Your task to perform on an android device: turn on notifications settings in the gmail app Image 0: 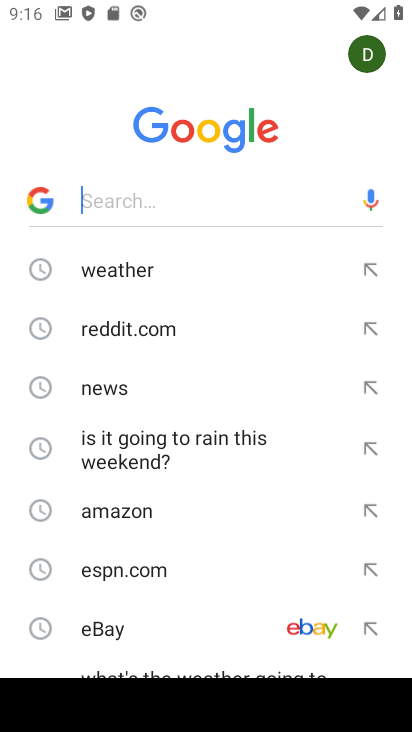
Step 0: press home button
Your task to perform on an android device: turn on notifications settings in the gmail app Image 1: 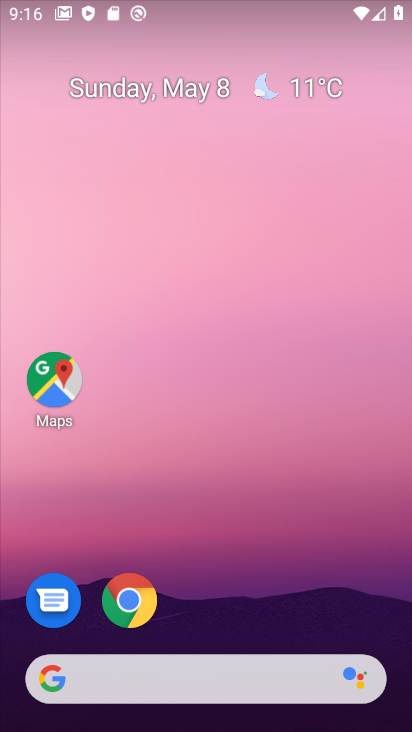
Step 1: drag from (243, 624) to (208, 52)
Your task to perform on an android device: turn on notifications settings in the gmail app Image 2: 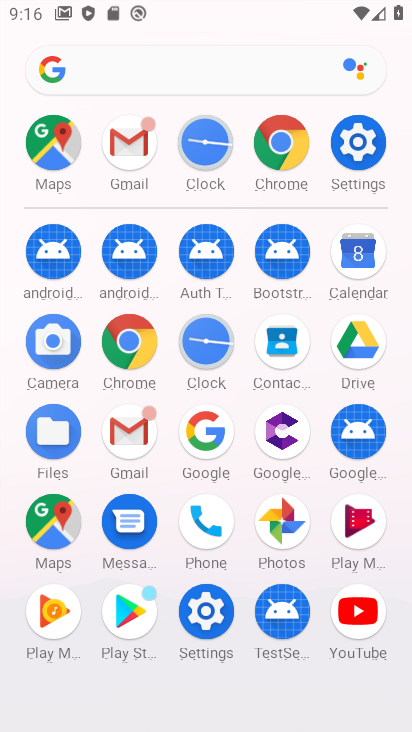
Step 2: click (113, 144)
Your task to perform on an android device: turn on notifications settings in the gmail app Image 3: 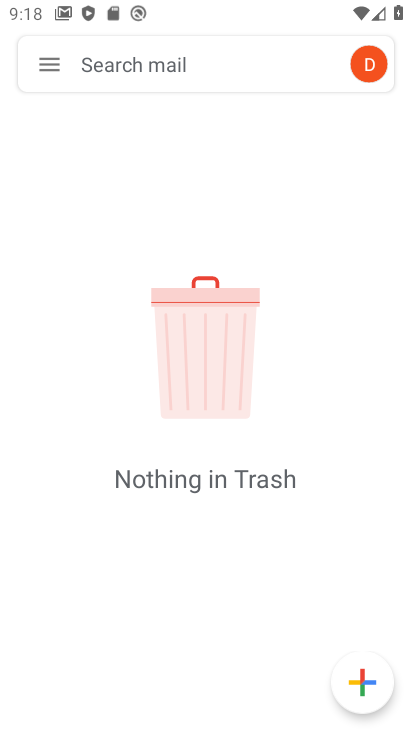
Step 3: click (53, 65)
Your task to perform on an android device: turn on notifications settings in the gmail app Image 4: 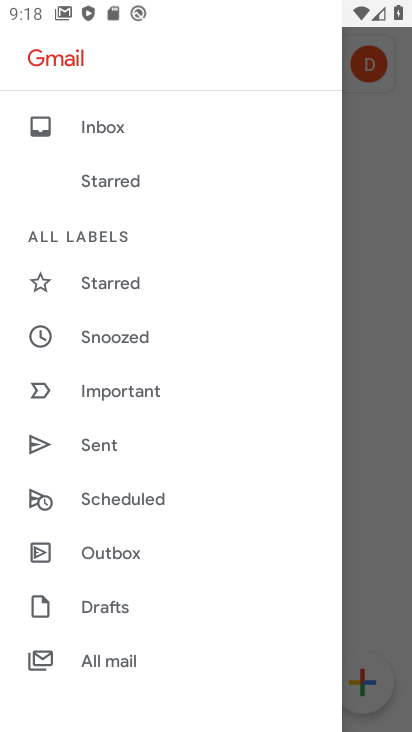
Step 4: drag from (168, 468) to (232, 79)
Your task to perform on an android device: turn on notifications settings in the gmail app Image 5: 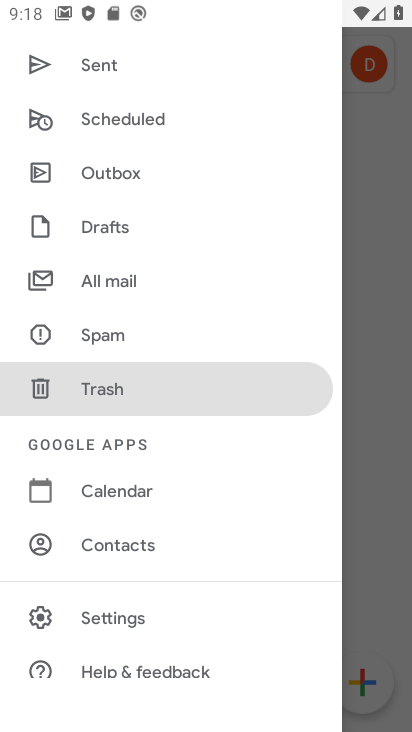
Step 5: click (139, 626)
Your task to perform on an android device: turn on notifications settings in the gmail app Image 6: 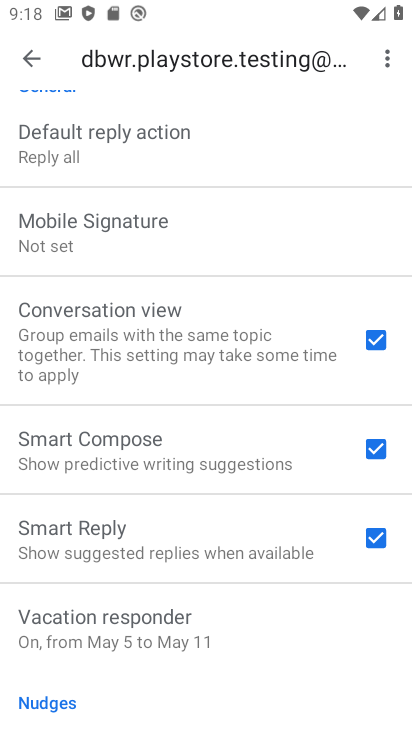
Step 6: drag from (180, 646) to (190, 169)
Your task to perform on an android device: turn on notifications settings in the gmail app Image 7: 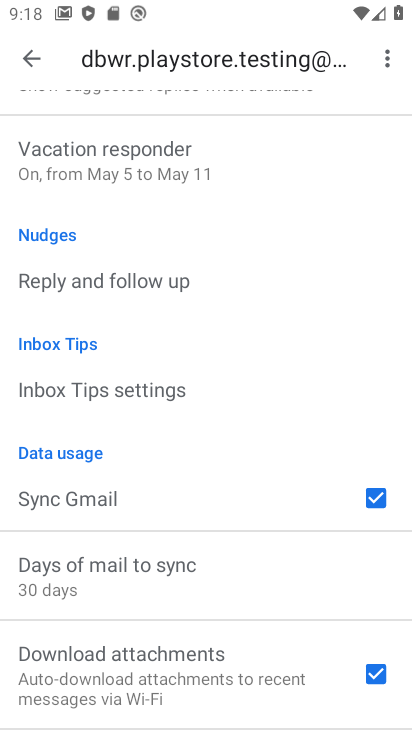
Step 7: drag from (141, 183) to (64, 691)
Your task to perform on an android device: turn on notifications settings in the gmail app Image 8: 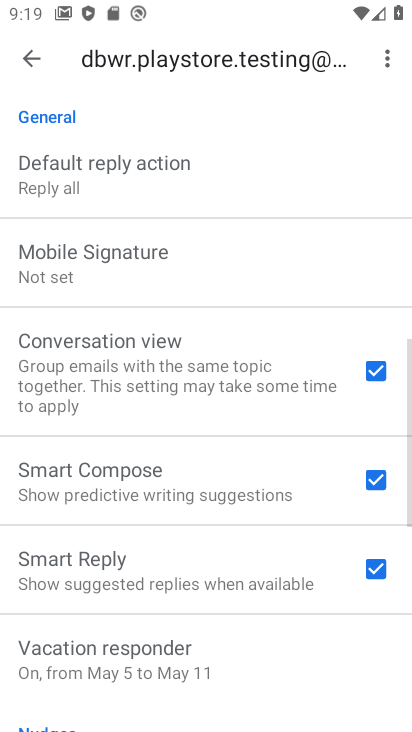
Step 8: drag from (111, 157) to (178, 695)
Your task to perform on an android device: turn on notifications settings in the gmail app Image 9: 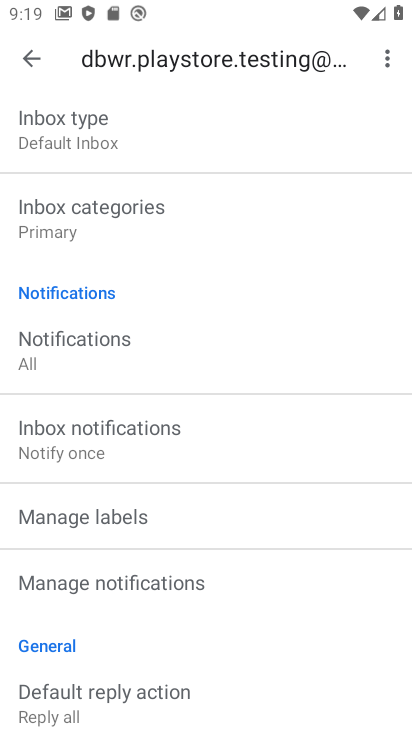
Step 9: click (106, 368)
Your task to perform on an android device: turn on notifications settings in the gmail app Image 10: 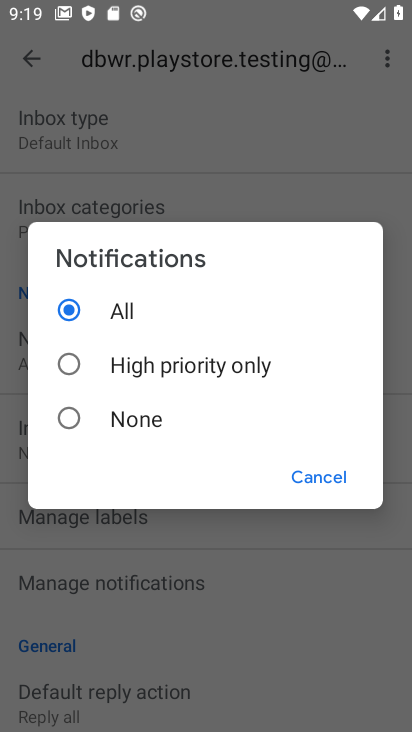
Step 10: task complete